Your task to perform on an android device: turn on wifi Image 0: 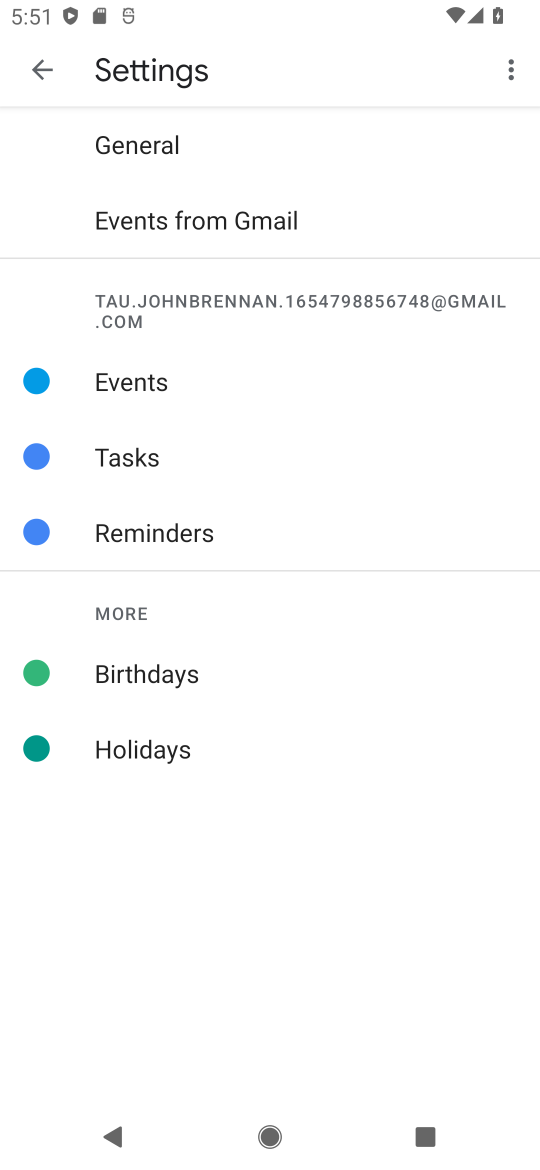
Step 0: press home button
Your task to perform on an android device: turn on wifi Image 1: 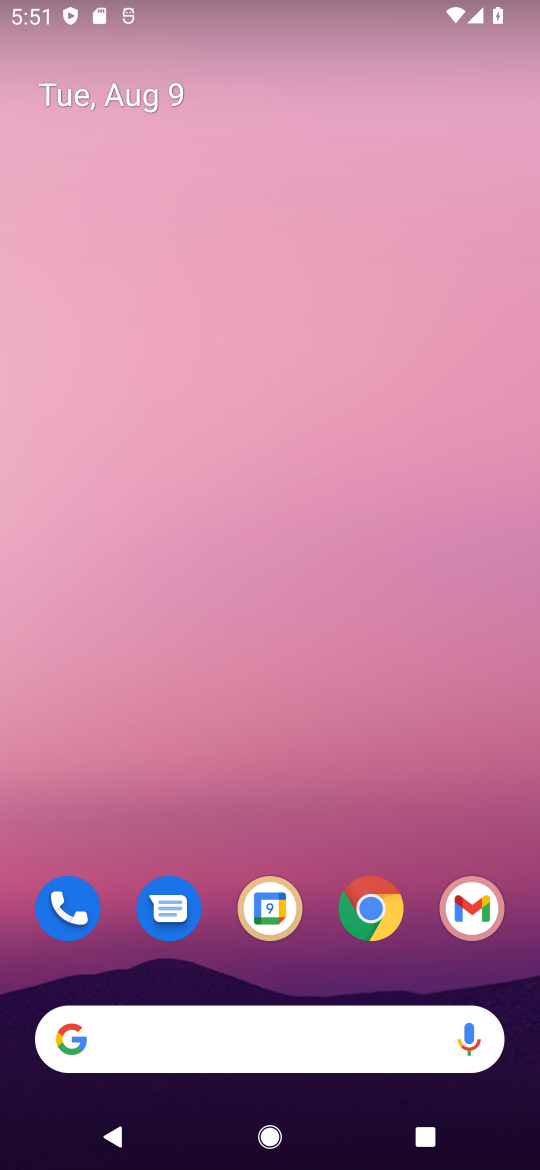
Step 1: drag from (363, 654) to (407, 17)
Your task to perform on an android device: turn on wifi Image 2: 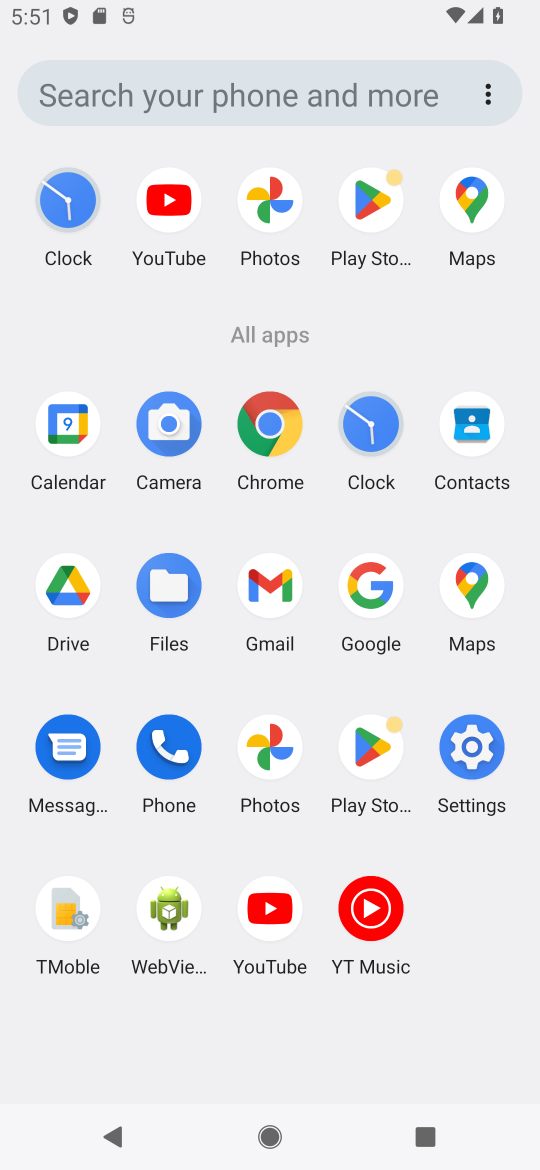
Step 2: click (466, 738)
Your task to perform on an android device: turn on wifi Image 3: 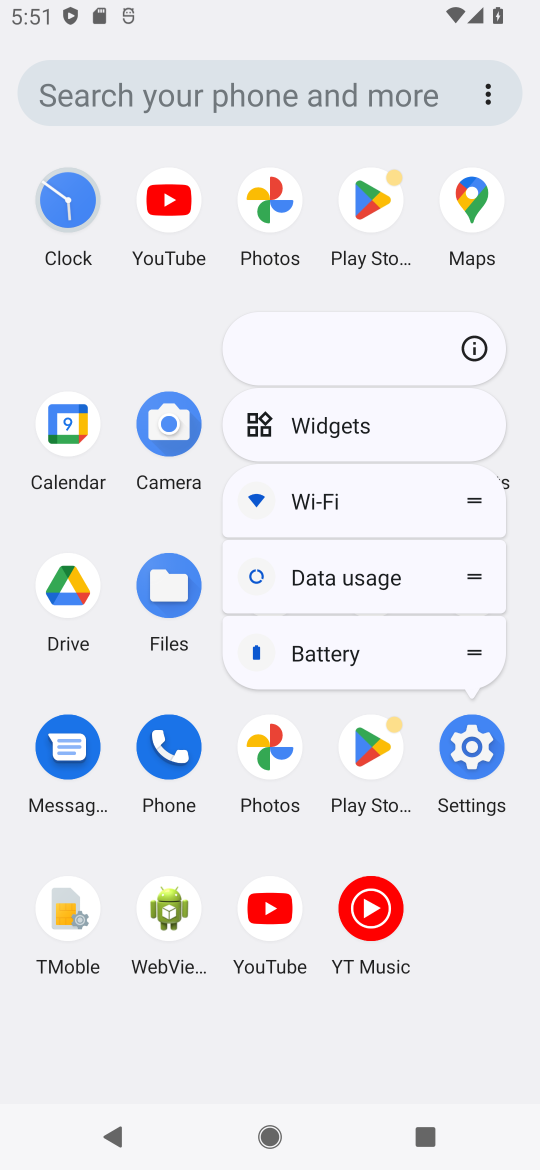
Step 3: click (468, 738)
Your task to perform on an android device: turn on wifi Image 4: 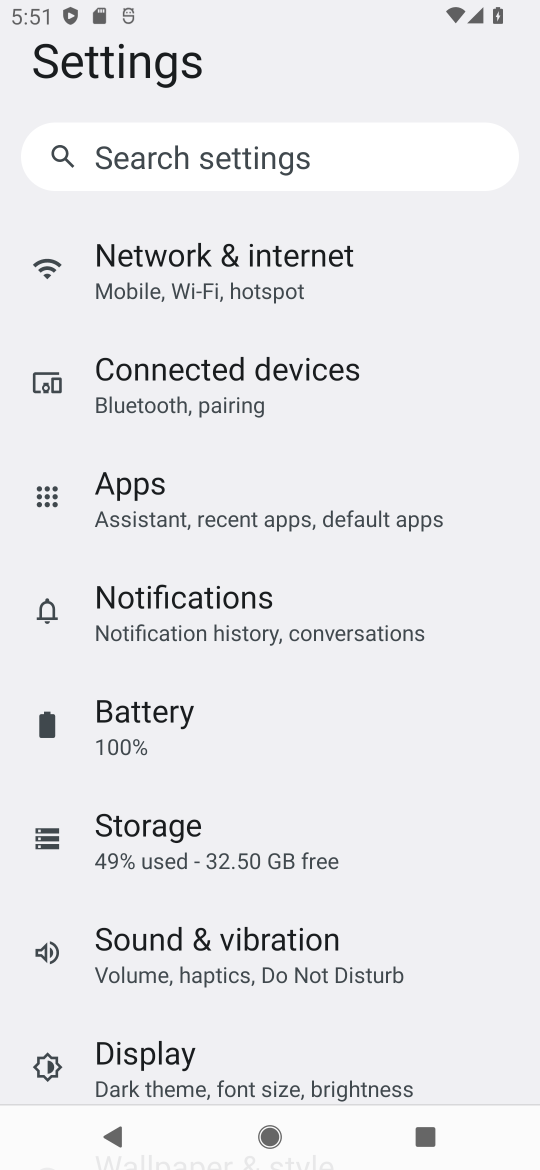
Step 4: click (311, 270)
Your task to perform on an android device: turn on wifi Image 5: 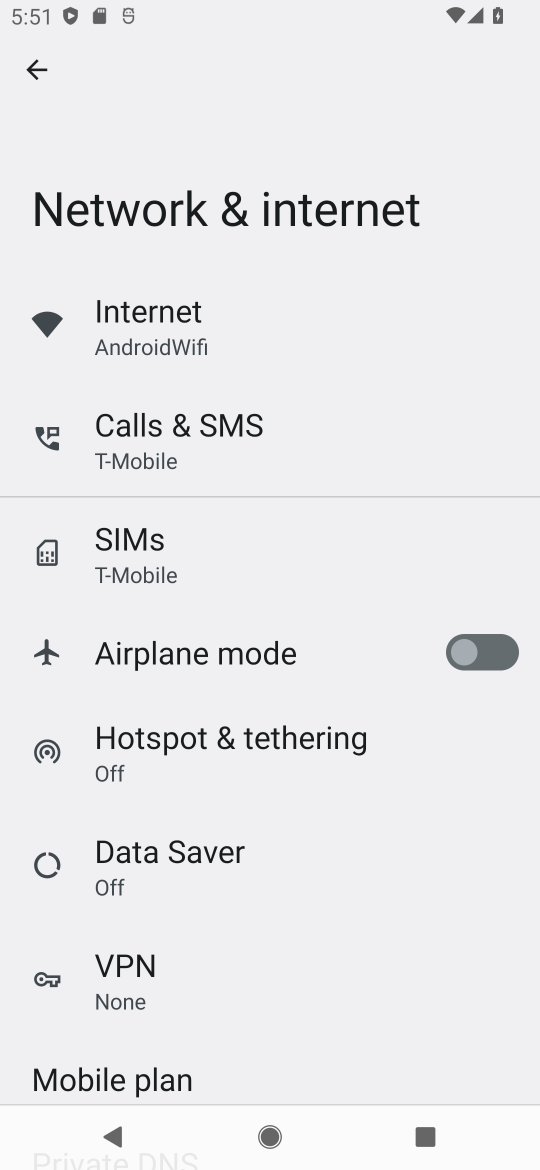
Step 5: task complete